Your task to perform on an android device: What is the news today? Image 0: 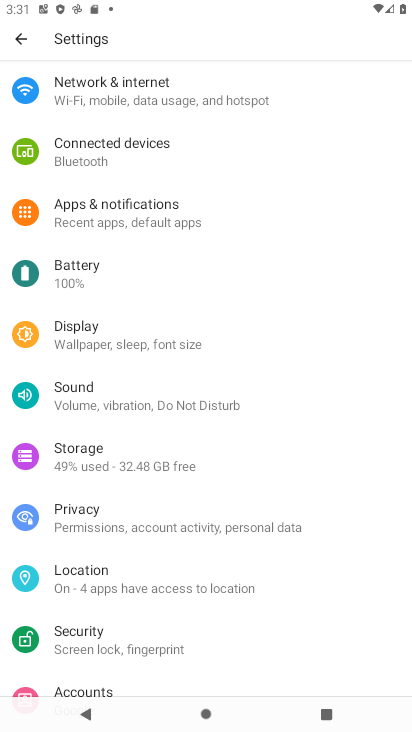
Step 0: press back button
Your task to perform on an android device: What is the news today? Image 1: 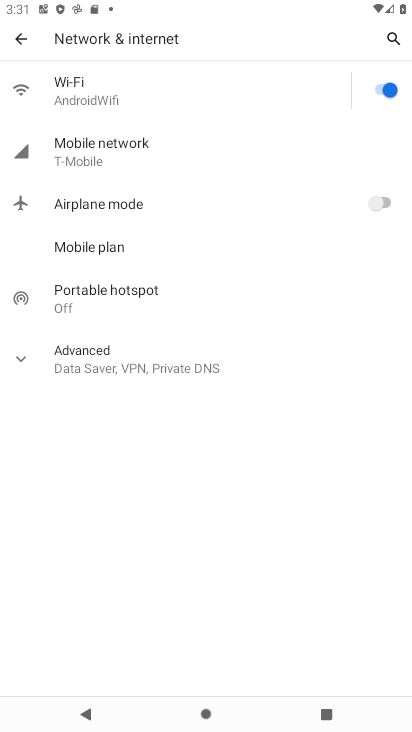
Step 1: press back button
Your task to perform on an android device: What is the news today? Image 2: 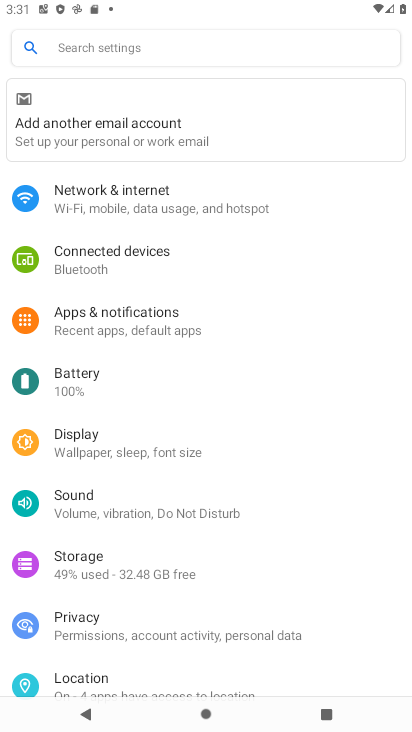
Step 2: press back button
Your task to perform on an android device: What is the news today? Image 3: 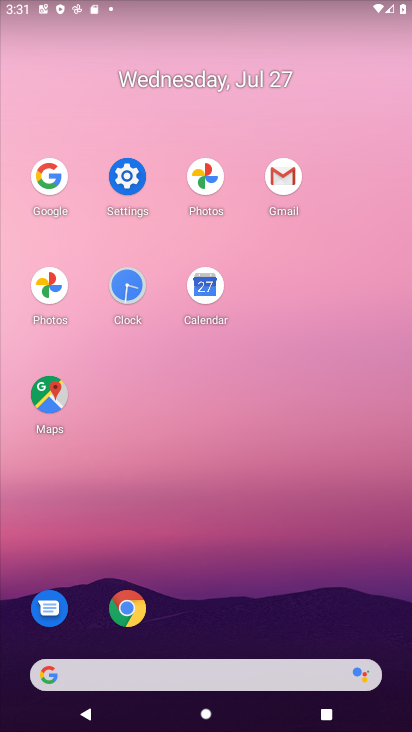
Step 3: click (47, 182)
Your task to perform on an android device: What is the news today? Image 4: 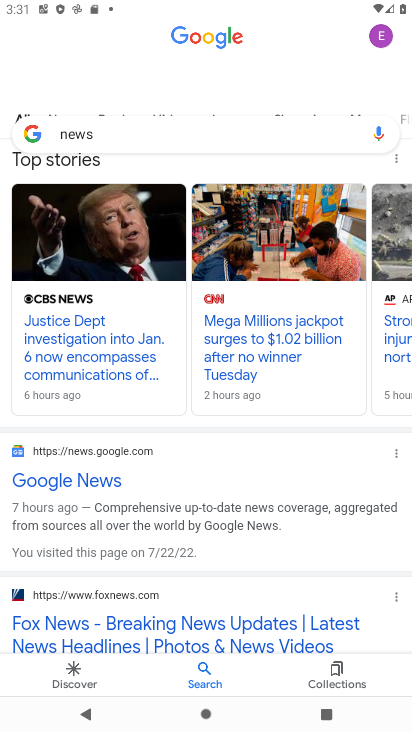
Step 4: task complete